Your task to perform on an android device: Clear all items from cart on amazon. Search for "razer thresher" on amazon, select the first entry, and add it to the cart. Image 0: 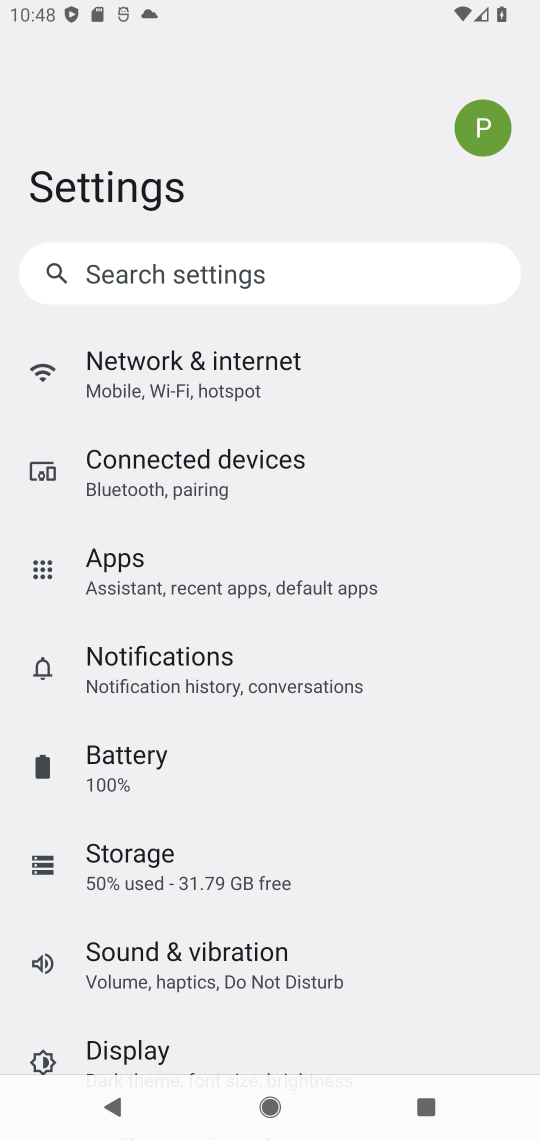
Step 0: press home button
Your task to perform on an android device: Clear all items from cart on amazon. Search for "razer thresher" on amazon, select the first entry, and add it to the cart. Image 1: 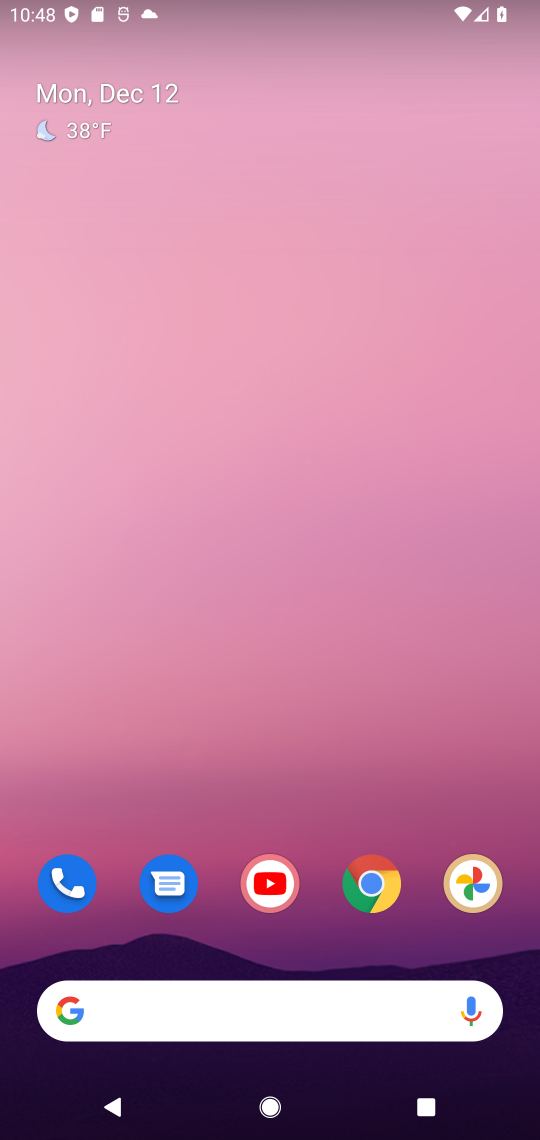
Step 1: drag from (210, 797) to (196, 4)
Your task to perform on an android device: Clear all items from cart on amazon. Search for "razer thresher" on amazon, select the first entry, and add it to the cart. Image 2: 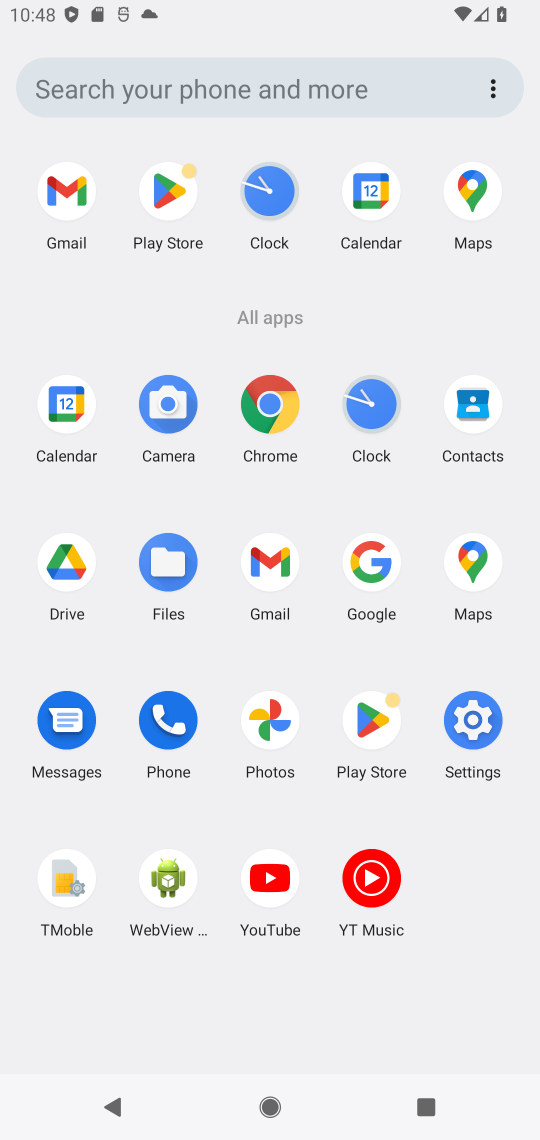
Step 2: click (364, 574)
Your task to perform on an android device: Clear all items from cart on amazon. Search for "razer thresher" on amazon, select the first entry, and add it to the cart. Image 3: 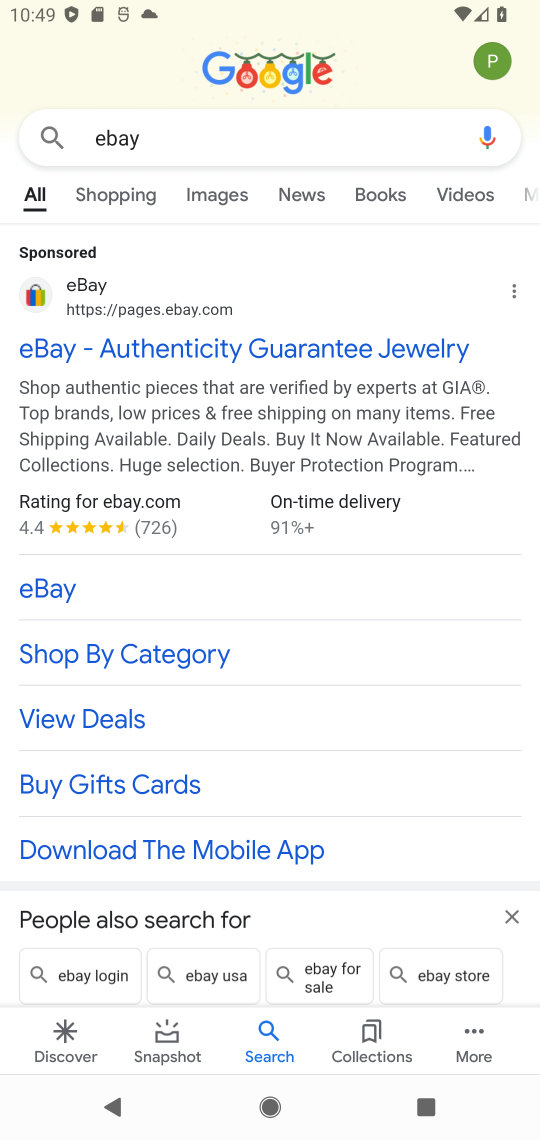
Step 3: click (175, 146)
Your task to perform on an android device: Clear all items from cart on amazon. Search for "razer thresher" on amazon, select the first entry, and add it to the cart. Image 4: 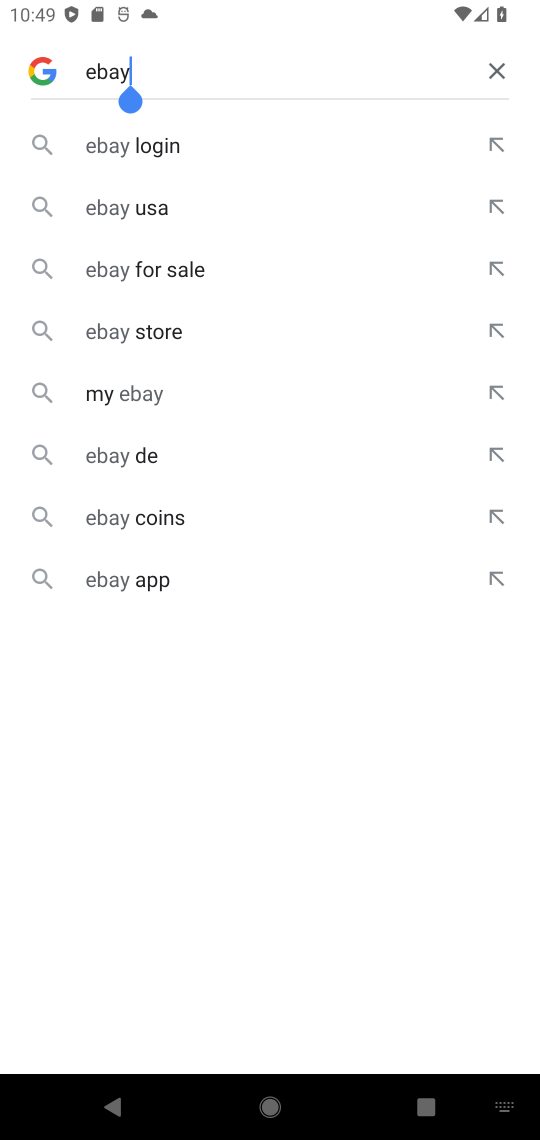
Step 4: click (487, 71)
Your task to perform on an android device: Clear all items from cart on amazon. Search for "razer thresher" on amazon, select the first entry, and add it to the cart. Image 5: 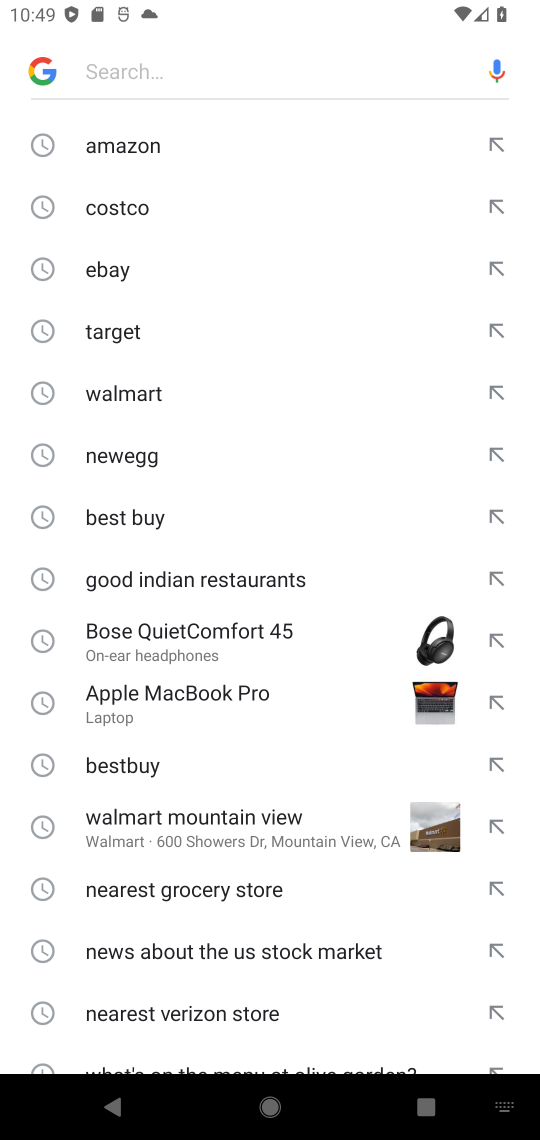
Step 5: click (112, 161)
Your task to perform on an android device: Clear all items from cart on amazon. Search for "razer thresher" on amazon, select the first entry, and add it to the cart. Image 6: 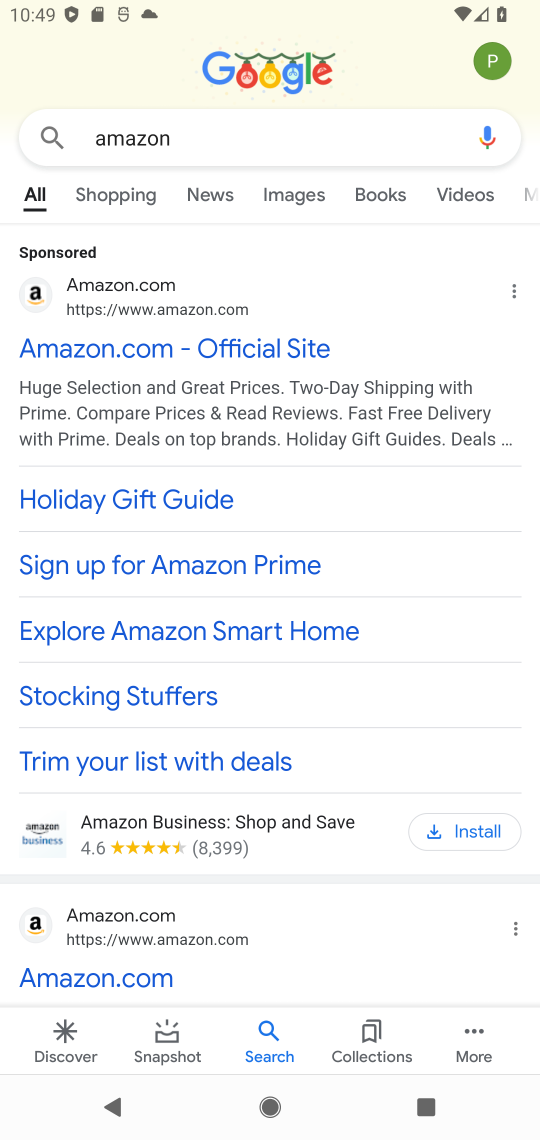
Step 6: click (76, 974)
Your task to perform on an android device: Clear all items from cart on amazon. Search for "razer thresher" on amazon, select the first entry, and add it to the cart. Image 7: 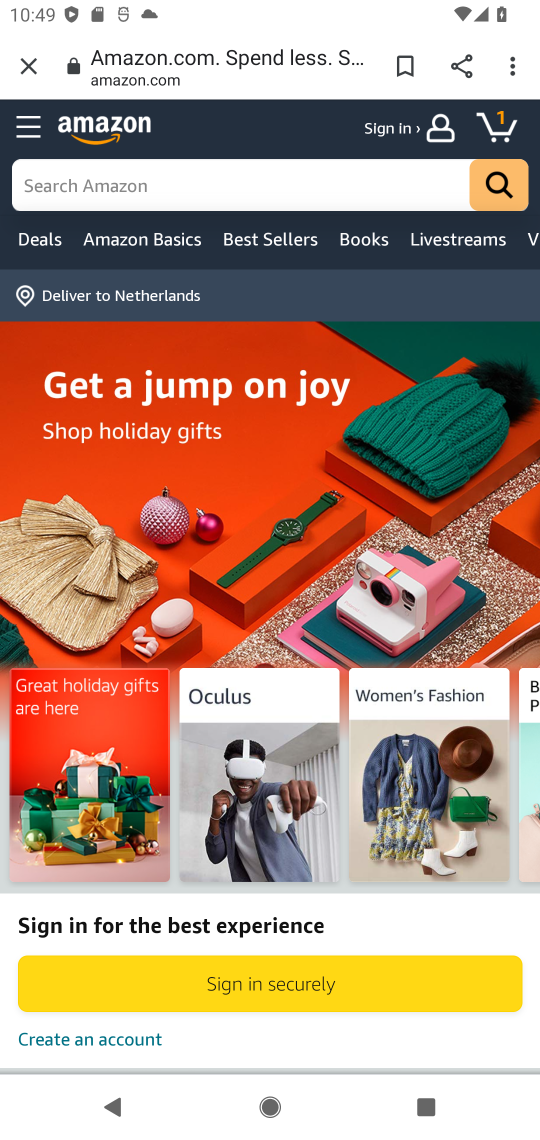
Step 7: click (498, 122)
Your task to perform on an android device: Clear all items from cart on amazon. Search for "razer thresher" on amazon, select the first entry, and add it to the cart. Image 8: 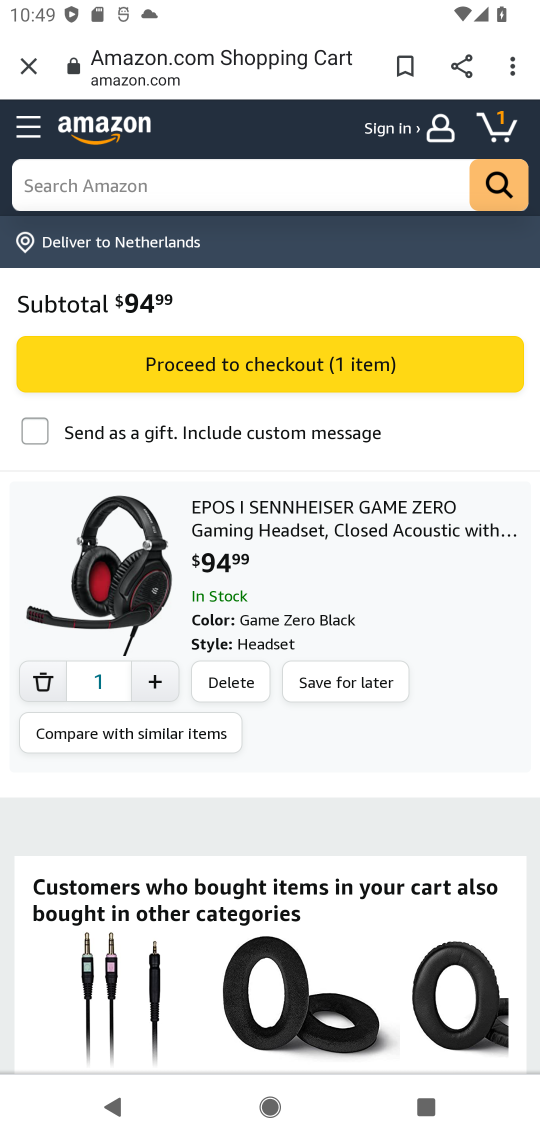
Step 8: click (241, 690)
Your task to perform on an android device: Clear all items from cart on amazon. Search for "razer thresher" on amazon, select the first entry, and add it to the cart. Image 9: 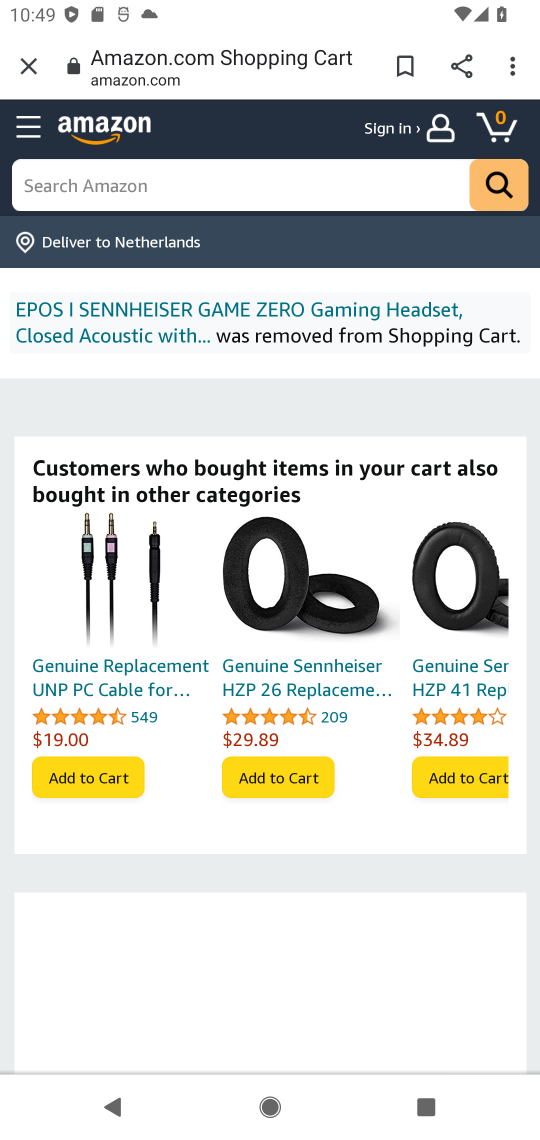
Step 9: click (160, 182)
Your task to perform on an android device: Clear all items from cart on amazon. Search for "razer thresher" on amazon, select the first entry, and add it to the cart. Image 10: 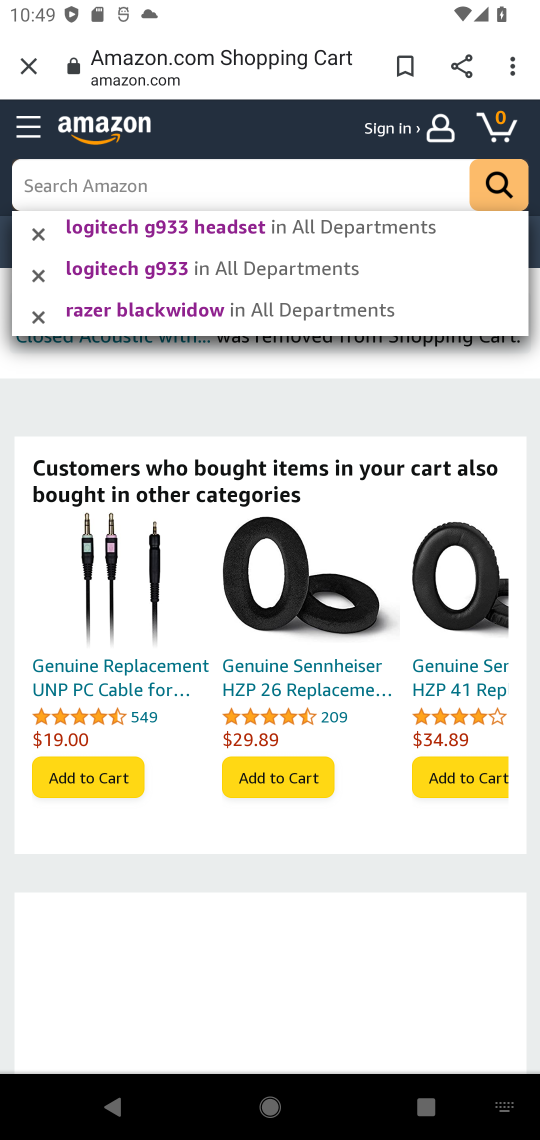
Step 10: click (158, 191)
Your task to perform on an android device: Clear all items from cart on amazon. Search for "razer thresher" on amazon, select the first entry, and add it to the cart. Image 11: 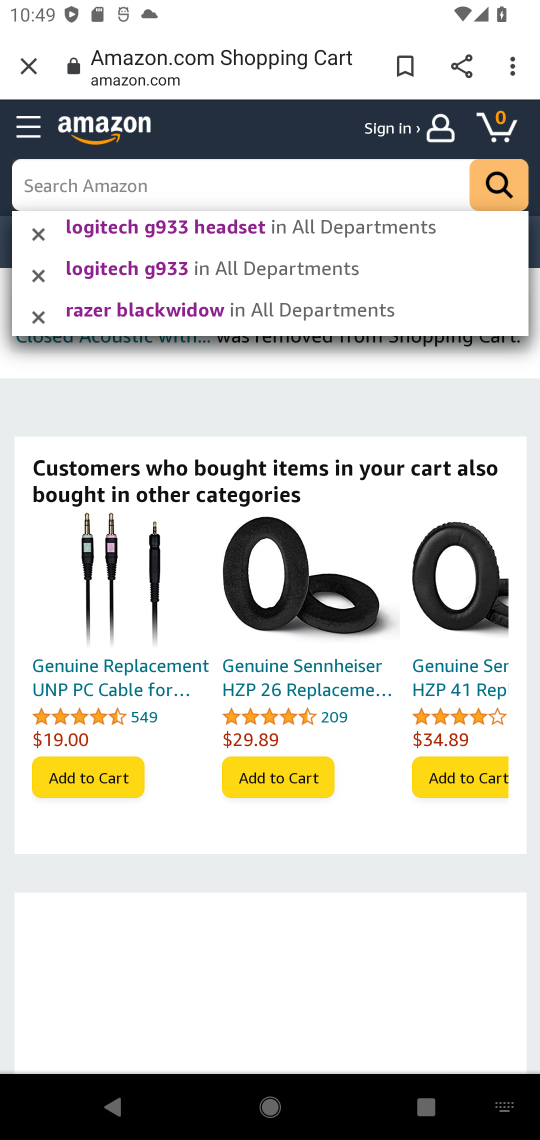
Step 11: click (158, 191)
Your task to perform on an android device: Clear all items from cart on amazon. Search for "razer thresher" on amazon, select the first entry, and add it to the cart. Image 12: 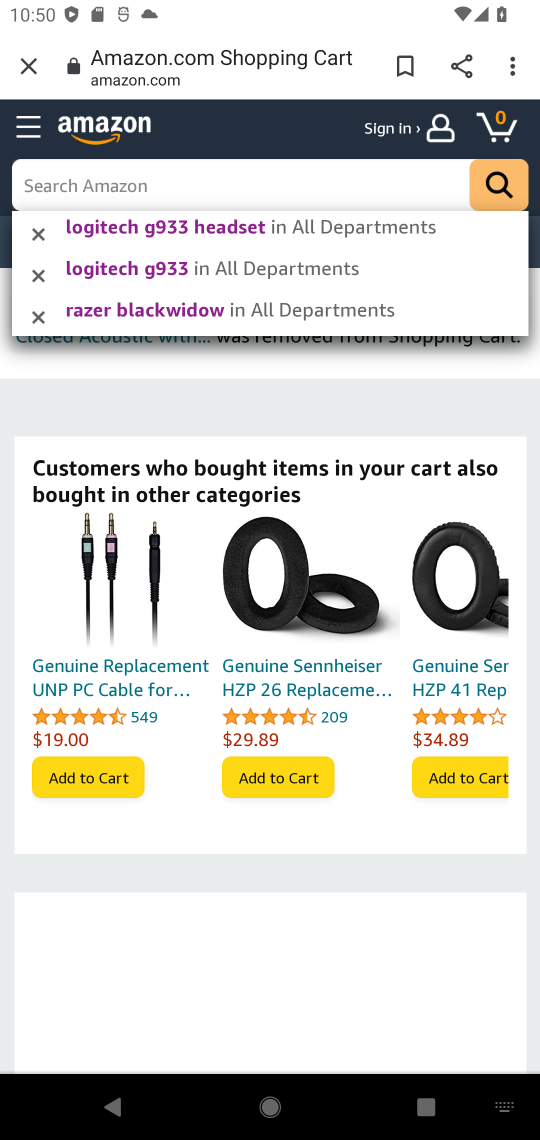
Step 12: type "razer thresher"
Your task to perform on an android device: Clear all items from cart on amazon. Search for "razer thresher" on amazon, select the first entry, and add it to the cart. Image 13: 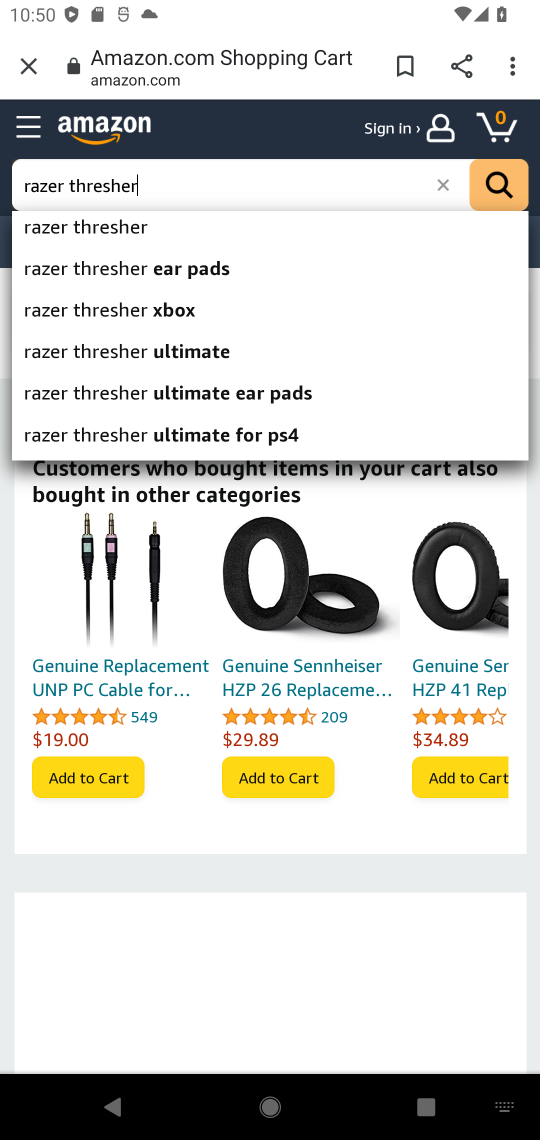
Step 13: click (128, 230)
Your task to perform on an android device: Clear all items from cart on amazon. Search for "razer thresher" on amazon, select the first entry, and add it to the cart. Image 14: 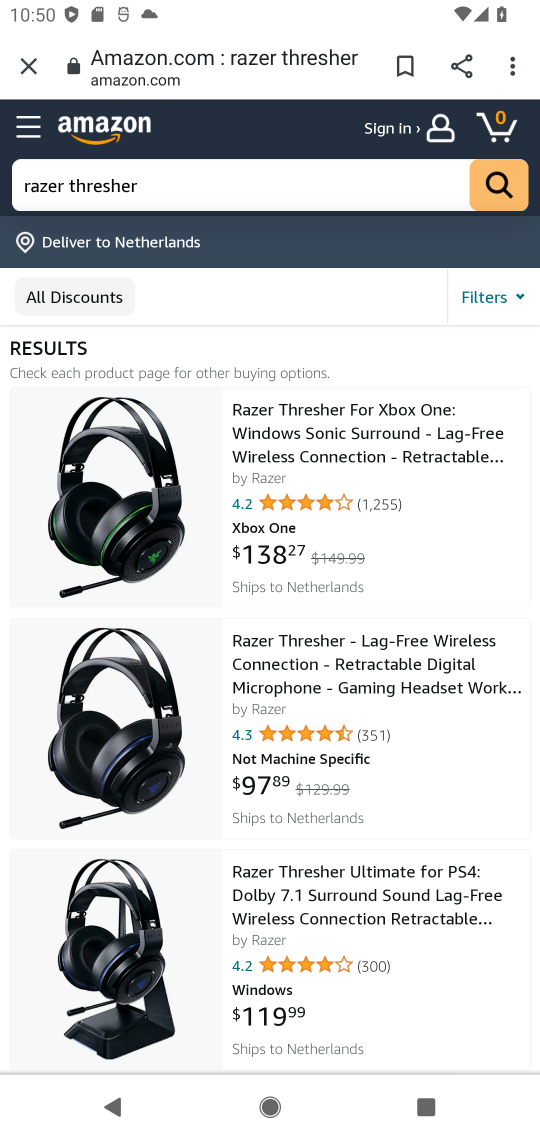
Step 14: click (394, 409)
Your task to perform on an android device: Clear all items from cart on amazon. Search for "razer thresher" on amazon, select the first entry, and add it to the cart. Image 15: 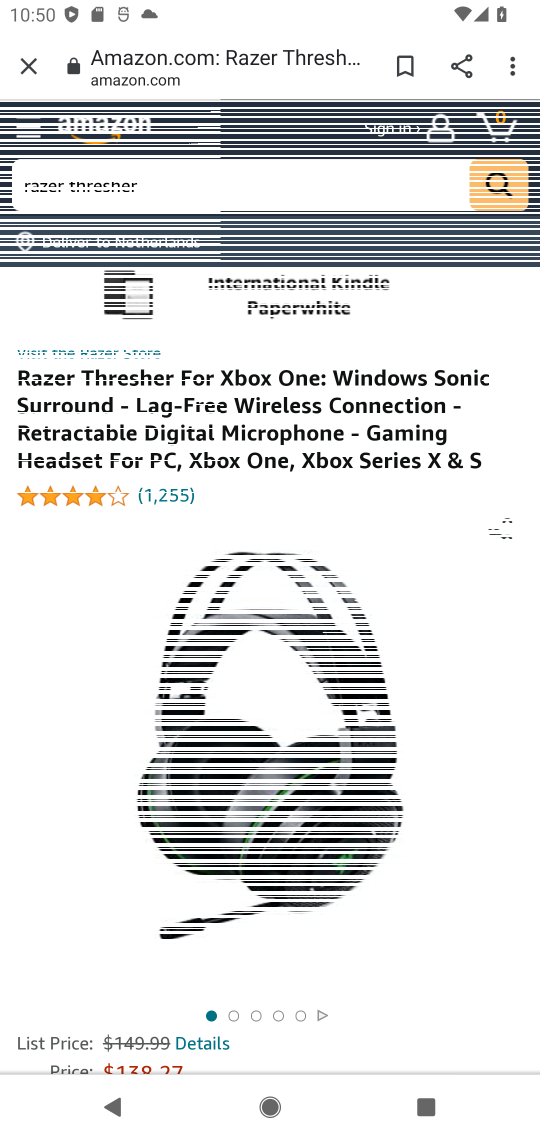
Step 15: drag from (205, 750) to (260, 503)
Your task to perform on an android device: Clear all items from cart on amazon. Search for "razer thresher" on amazon, select the first entry, and add it to the cart. Image 16: 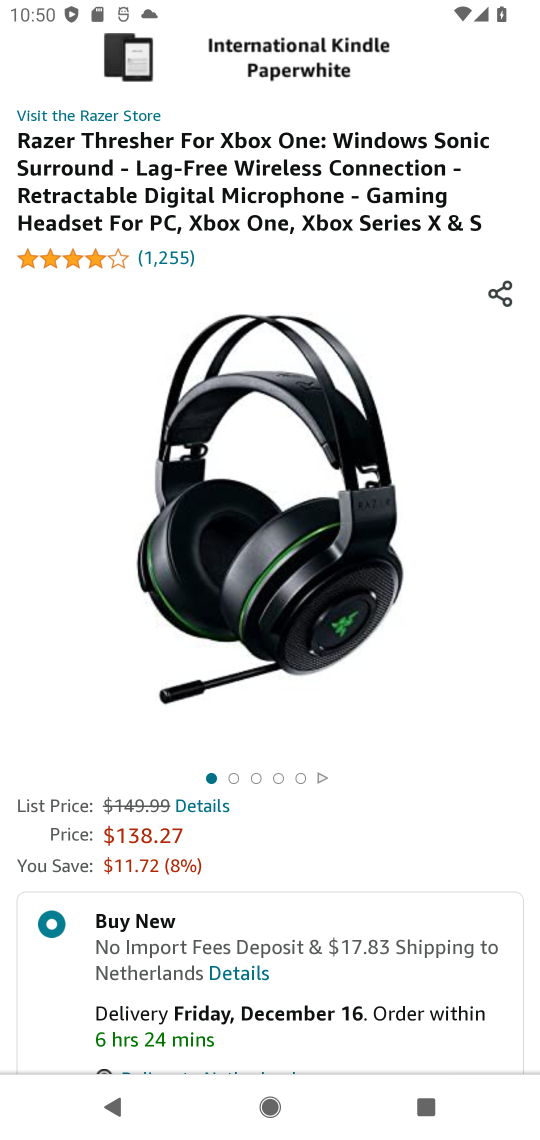
Step 16: drag from (258, 857) to (283, 444)
Your task to perform on an android device: Clear all items from cart on amazon. Search for "razer thresher" on amazon, select the first entry, and add it to the cart. Image 17: 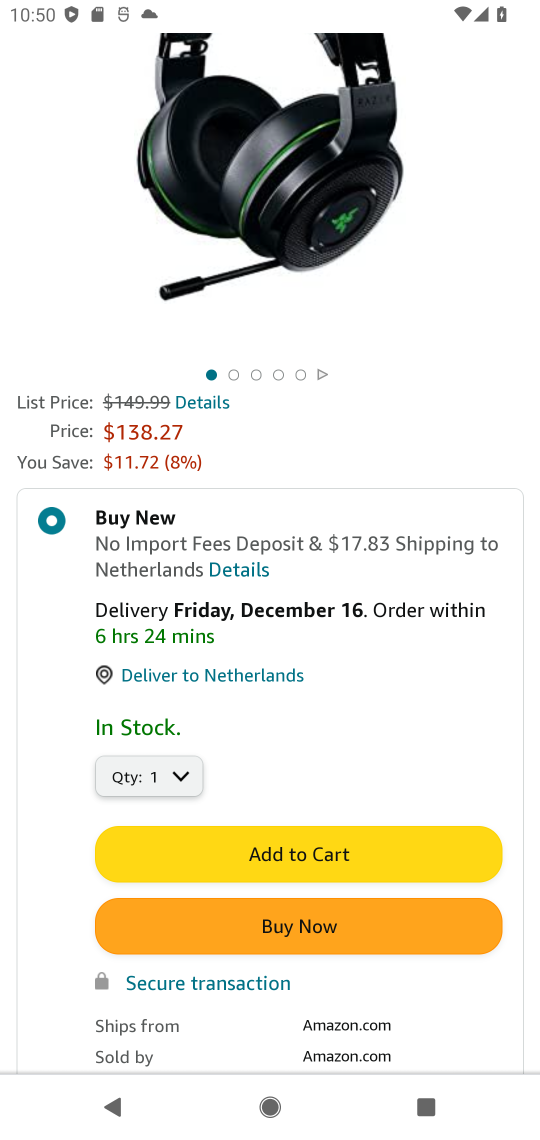
Step 17: click (295, 827)
Your task to perform on an android device: Clear all items from cart on amazon. Search for "razer thresher" on amazon, select the first entry, and add it to the cart. Image 18: 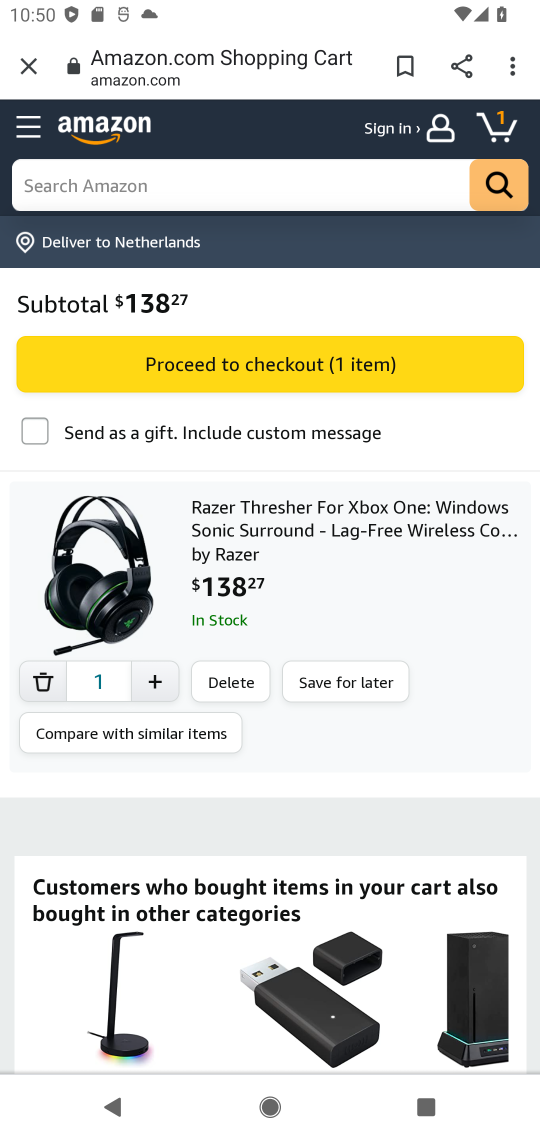
Step 18: task complete